Your task to perform on an android device: allow notifications from all sites in the chrome app Image 0: 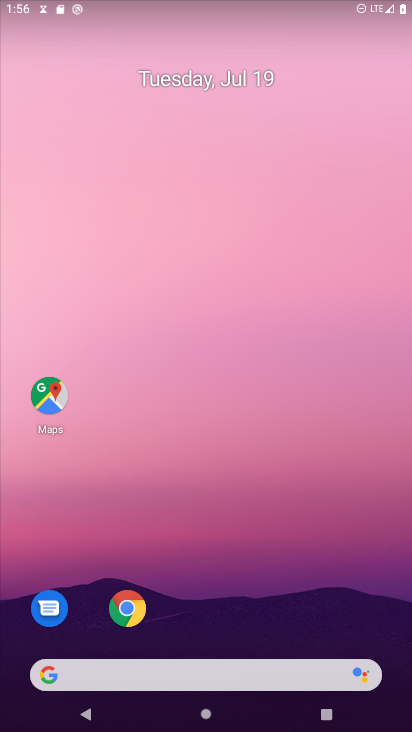
Step 0: drag from (175, 627) to (263, 71)
Your task to perform on an android device: allow notifications from all sites in the chrome app Image 1: 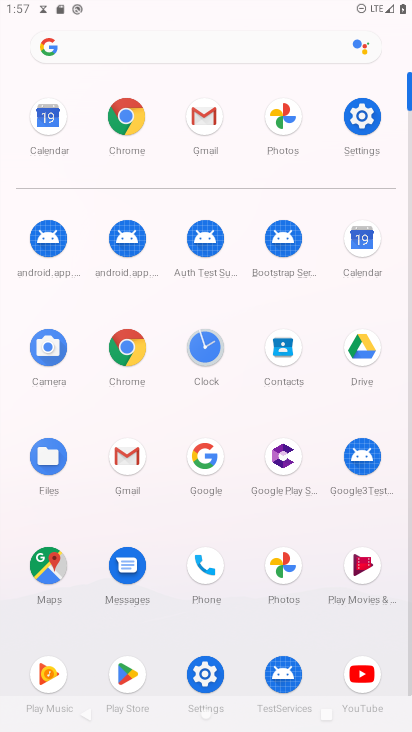
Step 1: click (125, 343)
Your task to perform on an android device: allow notifications from all sites in the chrome app Image 2: 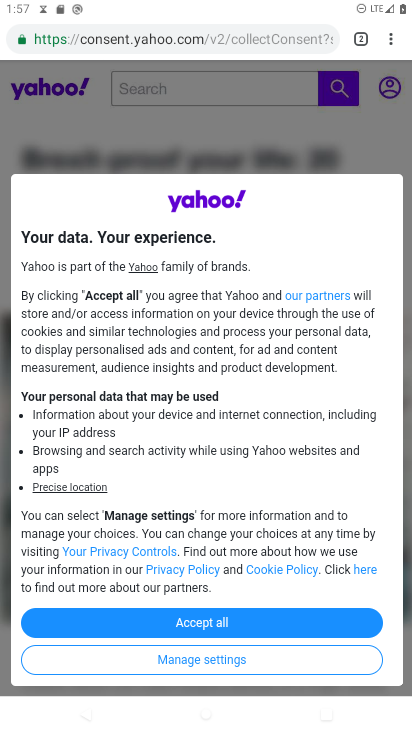
Step 2: drag from (389, 41) to (287, 438)
Your task to perform on an android device: allow notifications from all sites in the chrome app Image 3: 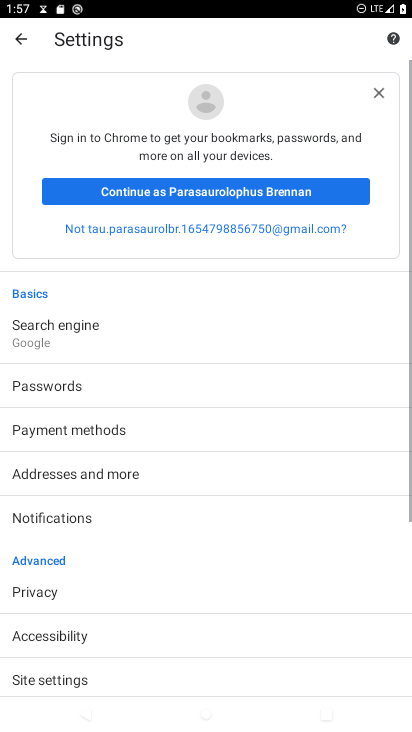
Step 3: drag from (149, 670) to (191, 412)
Your task to perform on an android device: allow notifications from all sites in the chrome app Image 4: 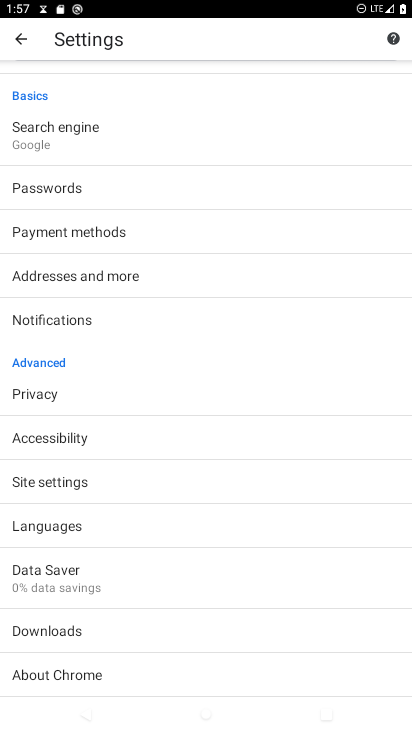
Step 4: click (81, 309)
Your task to perform on an android device: allow notifications from all sites in the chrome app Image 5: 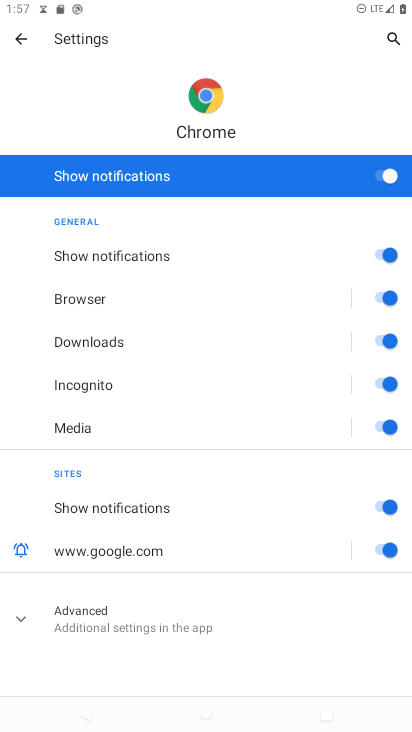
Step 5: task complete